Your task to perform on an android device: turn off wifi Image 0: 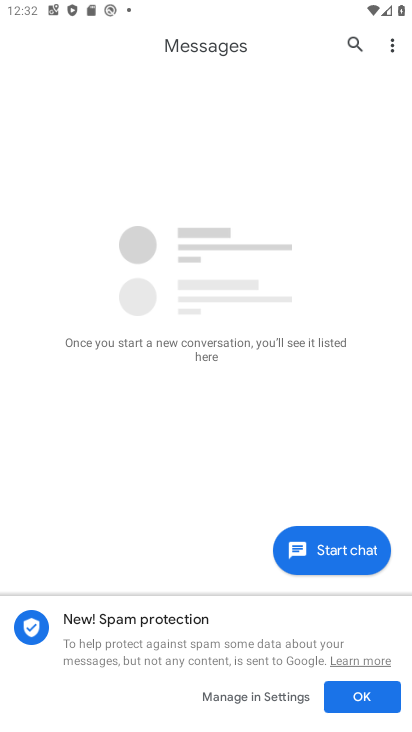
Step 0: press home button
Your task to perform on an android device: turn off wifi Image 1: 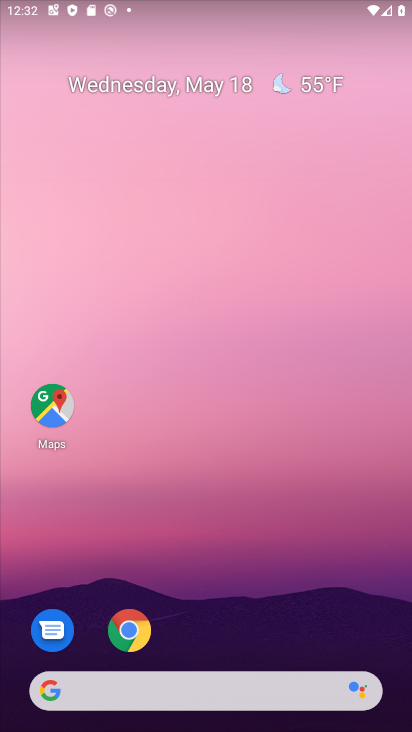
Step 1: drag from (214, 654) to (335, 150)
Your task to perform on an android device: turn off wifi Image 2: 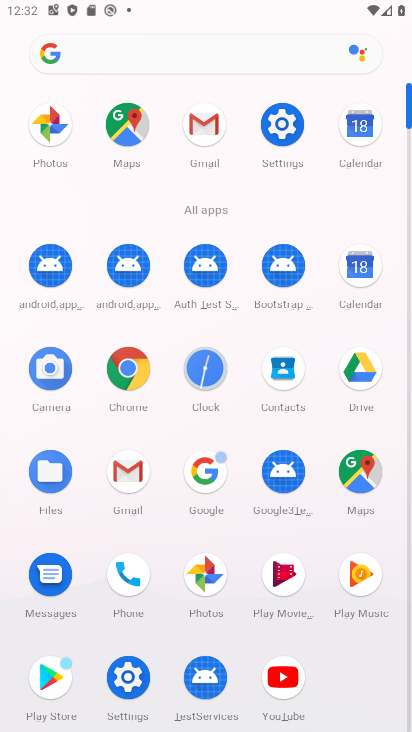
Step 2: click (132, 673)
Your task to perform on an android device: turn off wifi Image 3: 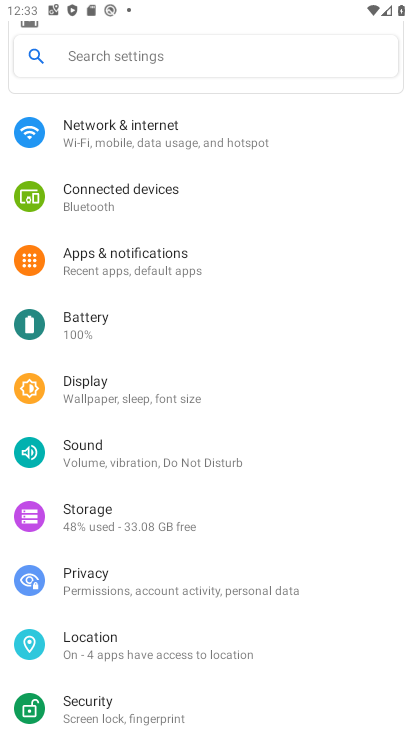
Step 3: click (196, 156)
Your task to perform on an android device: turn off wifi Image 4: 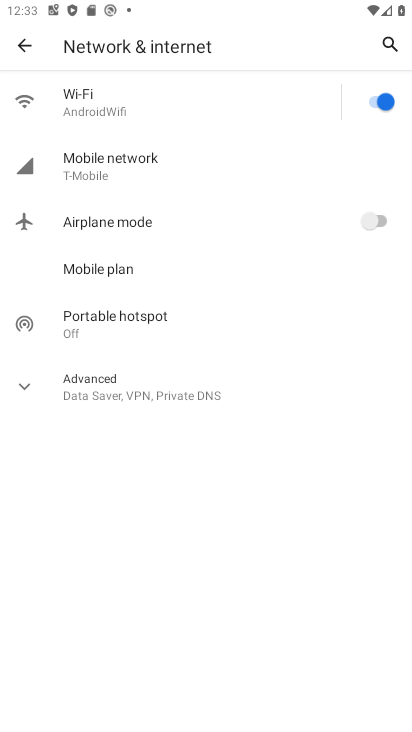
Step 4: click (382, 95)
Your task to perform on an android device: turn off wifi Image 5: 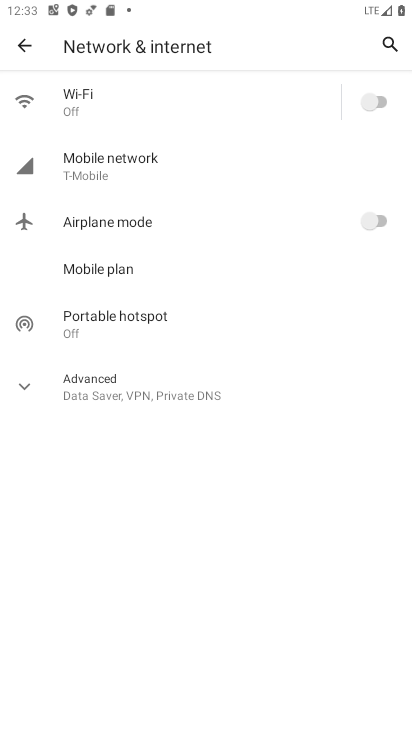
Step 5: task complete